Your task to perform on an android device: open wifi settings Image 0: 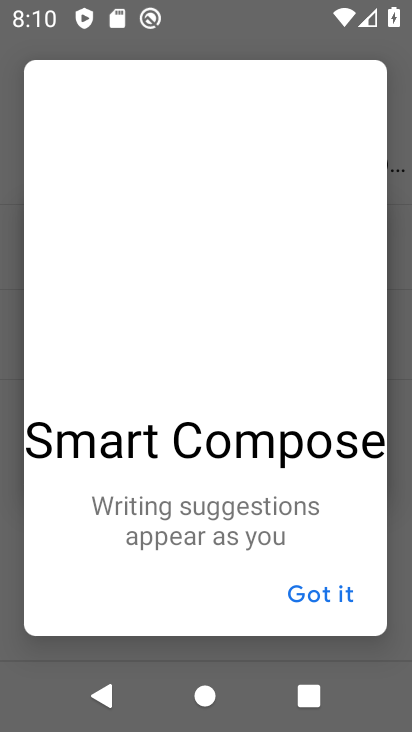
Step 0: press home button
Your task to perform on an android device: open wifi settings Image 1: 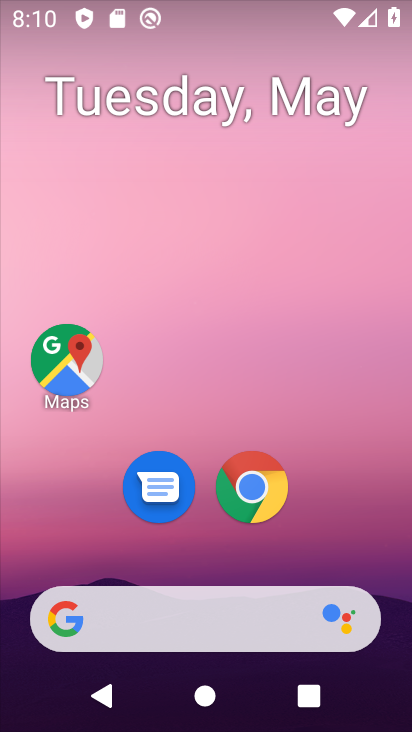
Step 1: drag from (211, 542) to (201, 99)
Your task to perform on an android device: open wifi settings Image 2: 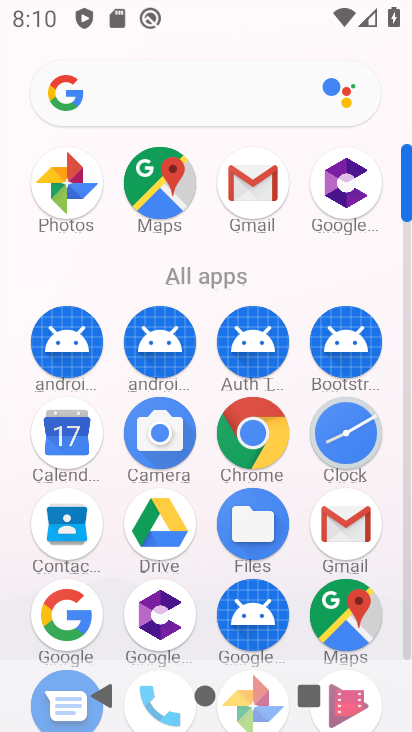
Step 2: drag from (201, 556) to (226, 129)
Your task to perform on an android device: open wifi settings Image 3: 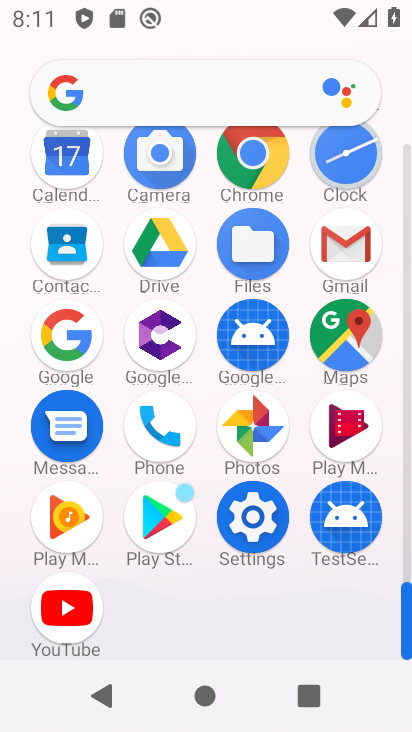
Step 3: click (247, 522)
Your task to perform on an android device: open wifi settings Image 4: 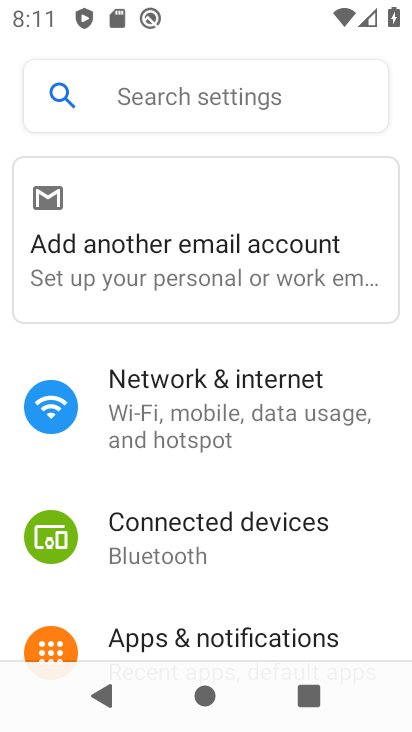
Step 4: click (176, 420)
Your task to perform on an android device: open wifi settings Image 5: 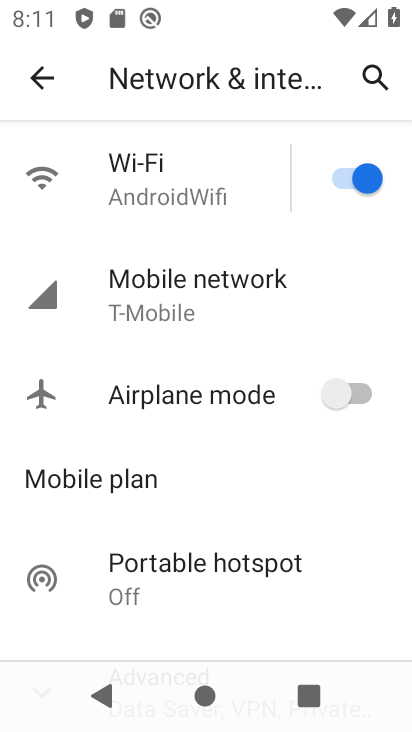
Step 5: click (229, 169)
Your task to perform on an android device: open wifi settings Image 6: 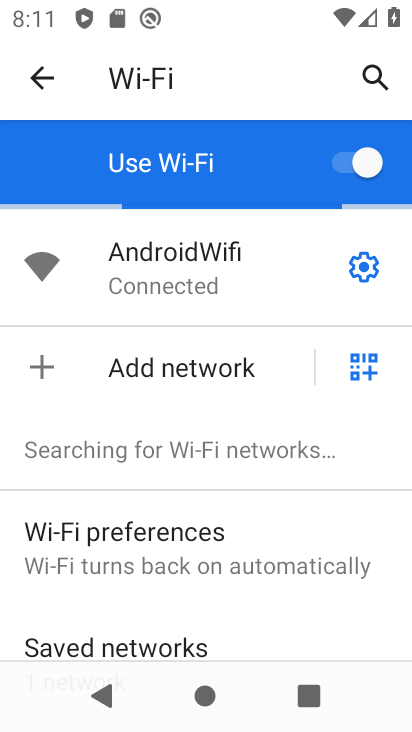
Step 6: task complete